Your task to perform on an android device: Clear the cart on target. Add "lg ultragear" to the cart on target, then select checkout. Image 0: 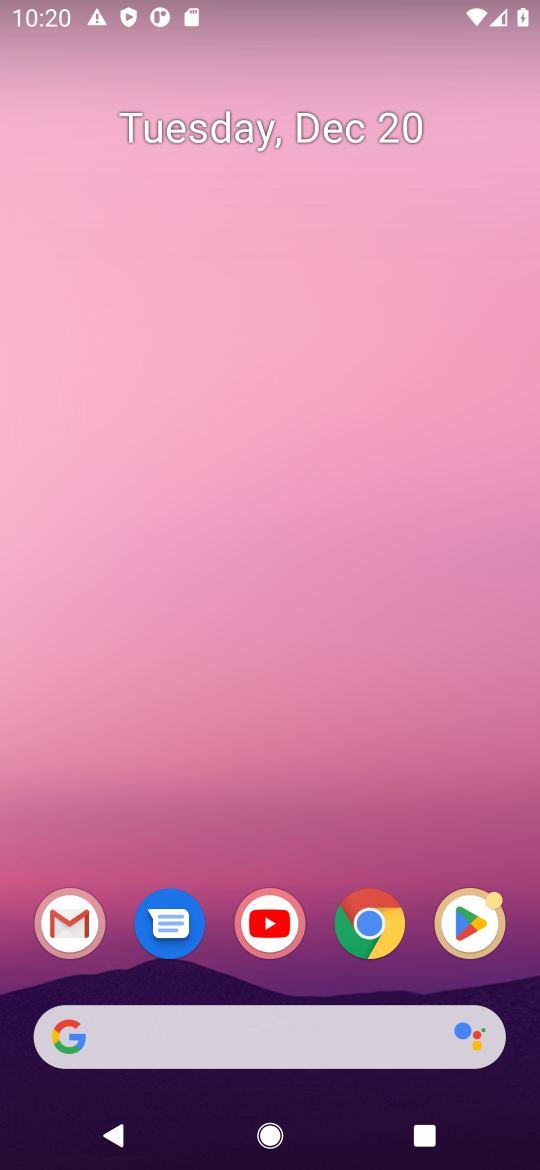
Step 0: click (353, 946)
Your task to perform on an android device: Clear the cart on target. Add "lg ultragear" to the cart on target, then select checkout. Image 1: 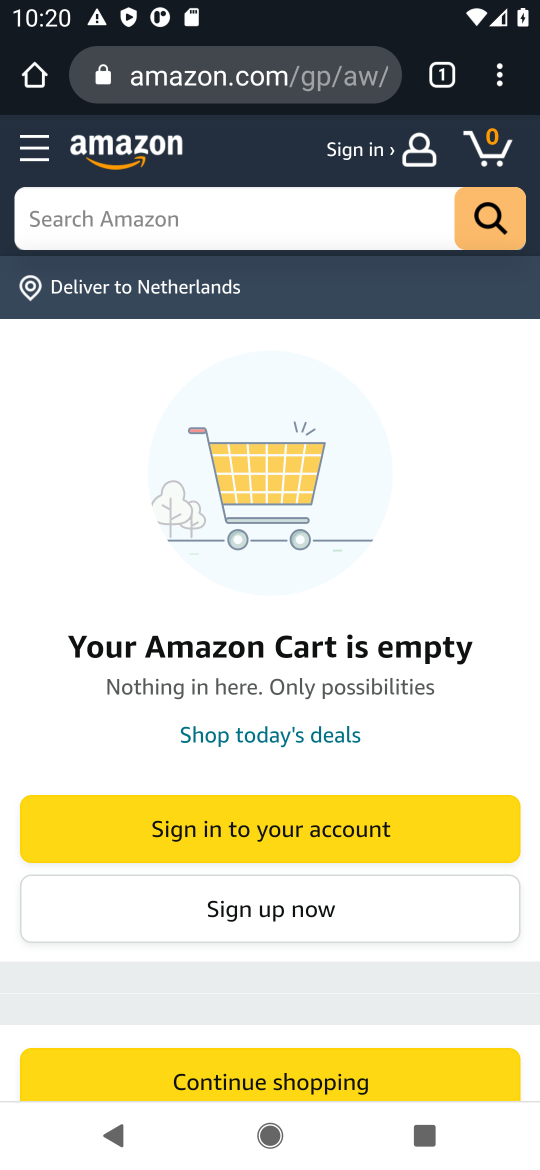
Step 1: click (262, 90)
Your task to perform on an android device: Clear the cart on target. Add "lg ultragear" to the cart on target, then select checkout. Image 2: 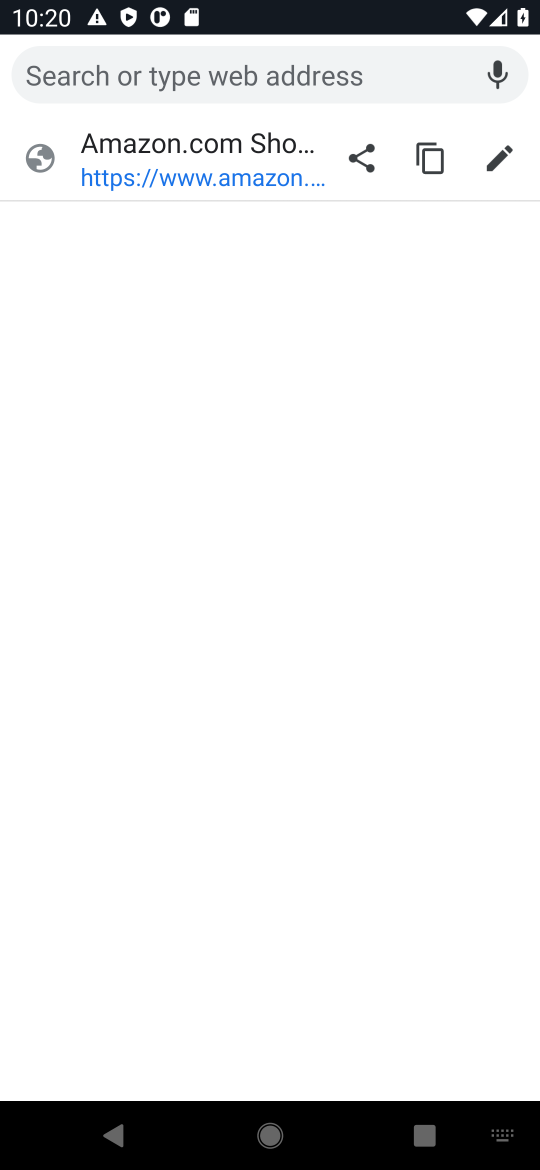
Step 2: type "target"
Your task to perform on an android device: Clear the cart on target. Add "lg ultragear" to the cart on target, then select checkout. Image 3: 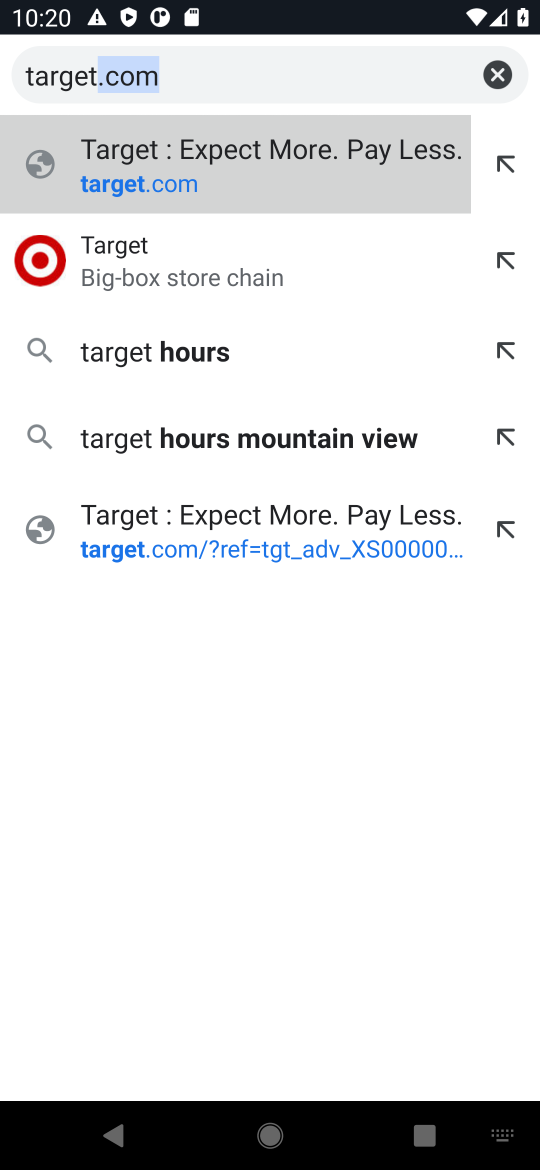
Step 3: click (201, 171)
Your task to perform on an android device: Clear the cart on target. Add "lg ultragear" to the cart on target, then select checkout. Image 4: 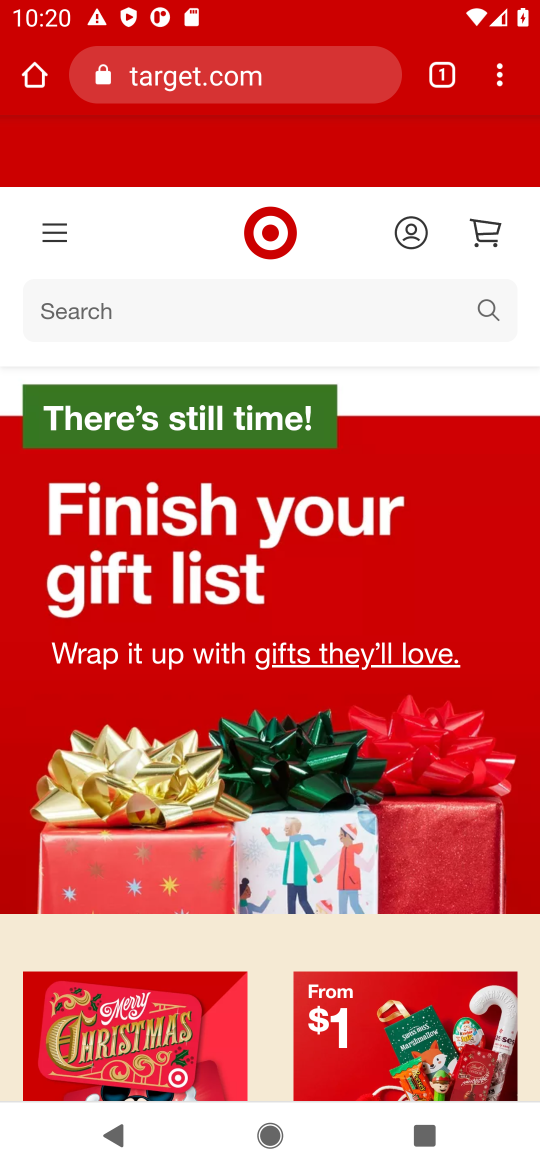
Step 4: click (116, 306)
Your task to perform on an android device: Clear the cart on target. Add "lg ultragear" to the cart on target, then select checkout. Image 5: 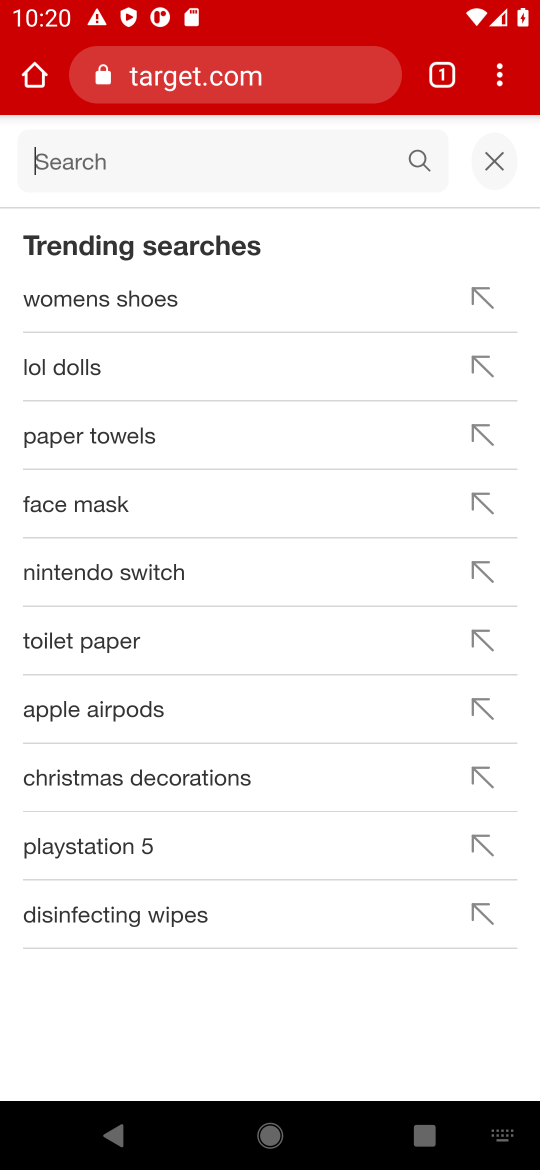
Step 5: type "lg ultragear"
Your task to perform on an android device: Clear the cart on target. Add "lg ultragear" to the cart on target, then select checkout. Image 6: 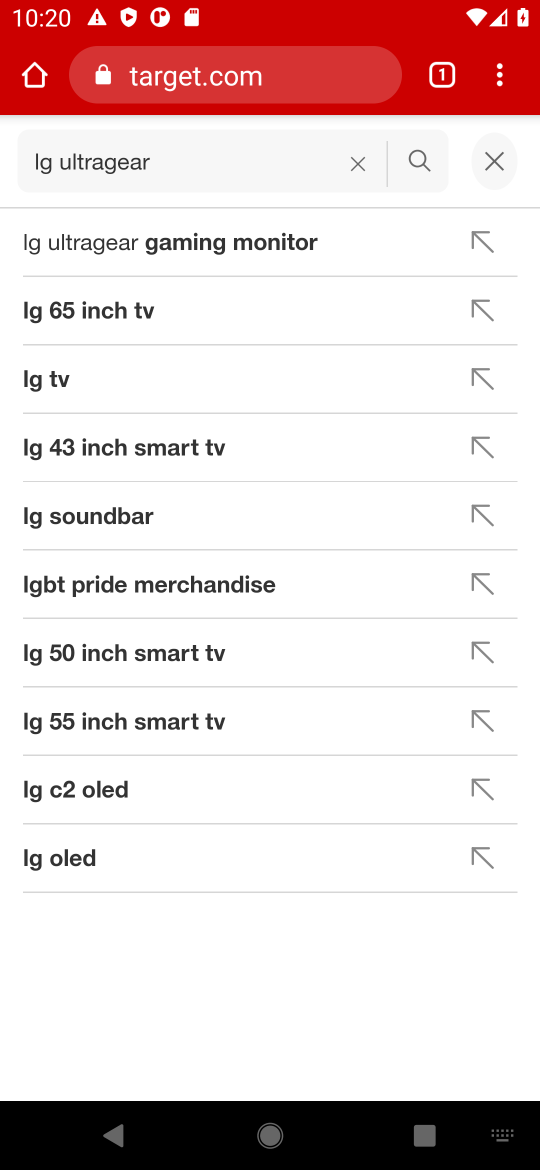
Step 6: click (425, 162)
Your task to perform on an android device: Clear the cart on target. Add "lg ultragear" to the cart on target, then select checkout. Image 7: 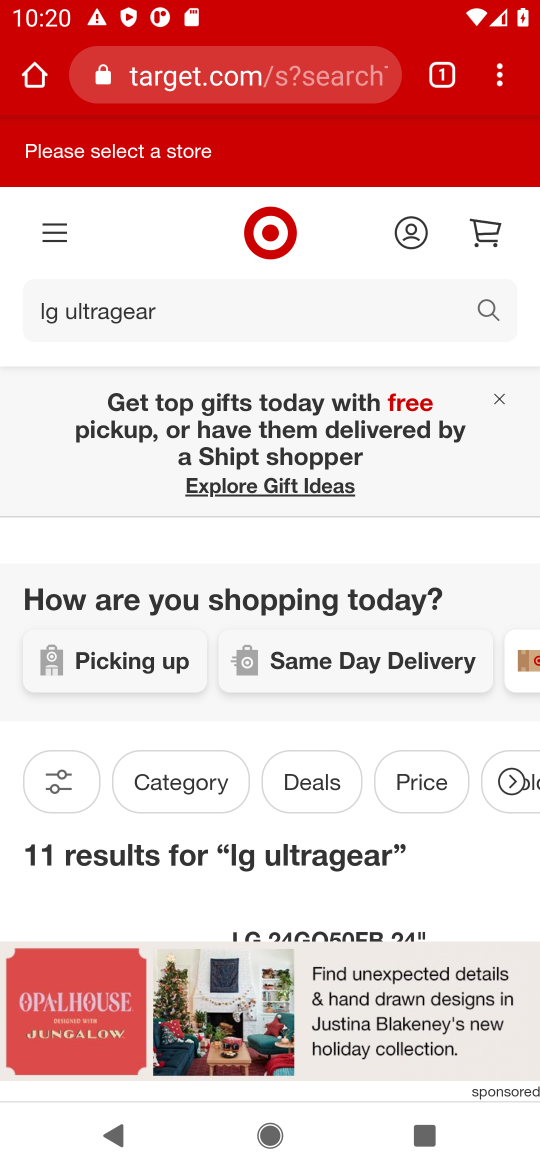
Step 7: drag from (257, 886) to (326, 324)
Your task to perform on an android device: Clear the cart on target. Add "lg ultragear" to the cart on target, then select checkout. Image 8: 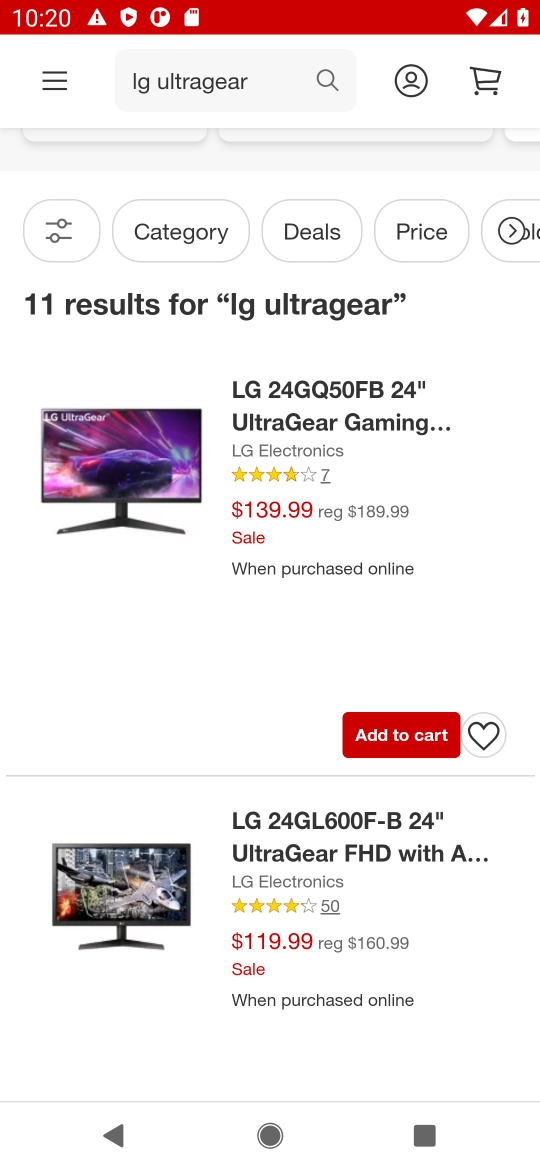
Step 8: click (384, 727)
Your task to perform on an android device: Clear the cart on target. Add "lg ultragear" to the cart on target, then select checkout. Image 9: 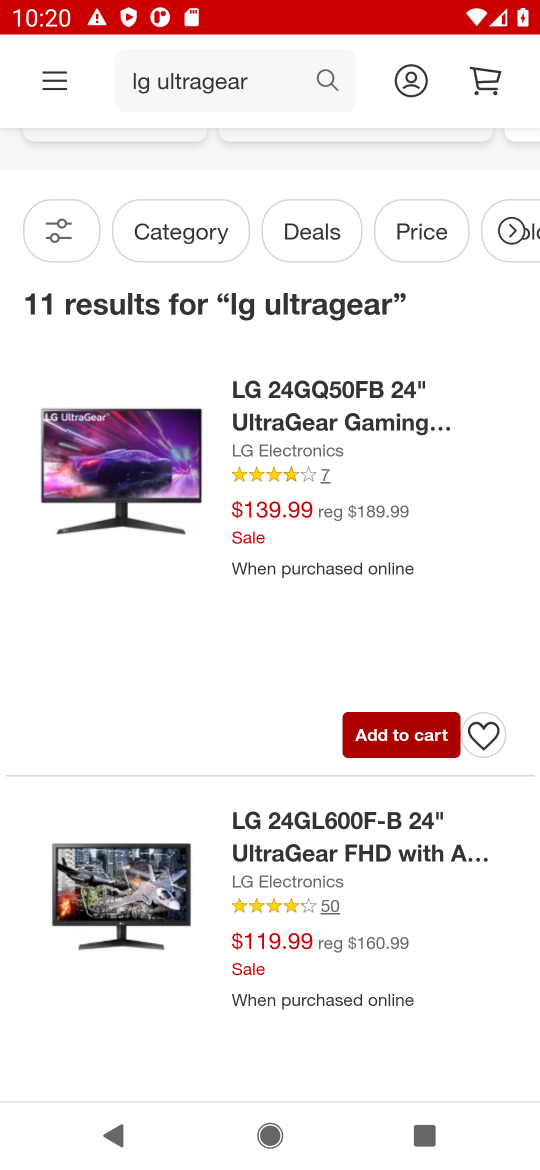
Step 9: task complete